Your task to perform on an android device: delete the emails in spam in the gmail app Image 0: 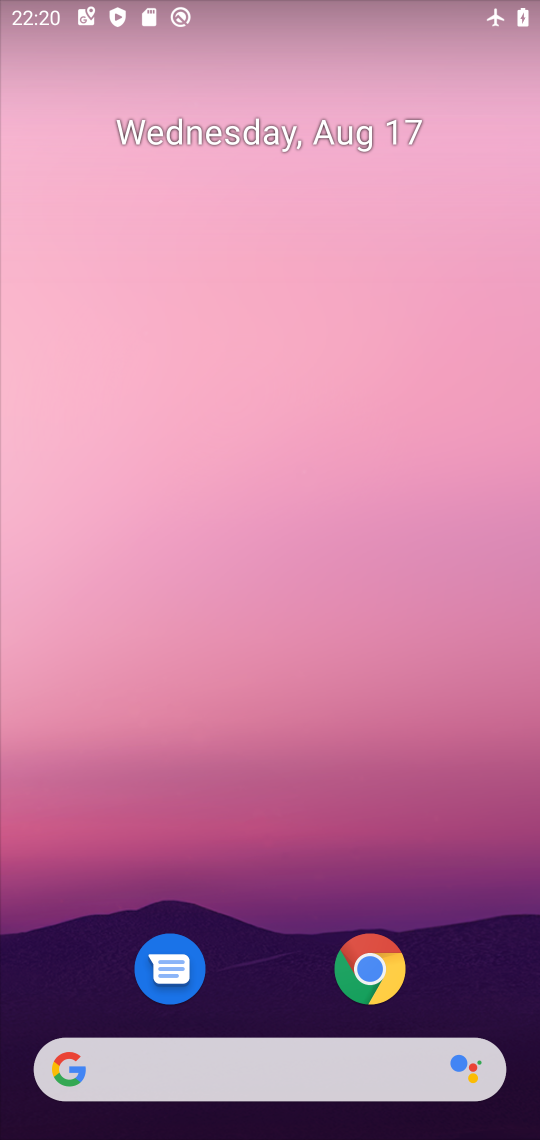
Step 0: drag from (272, 903) to (161, 238)
Your task to perform on an android device: delete the emails in spam in the gmail app Image 1: 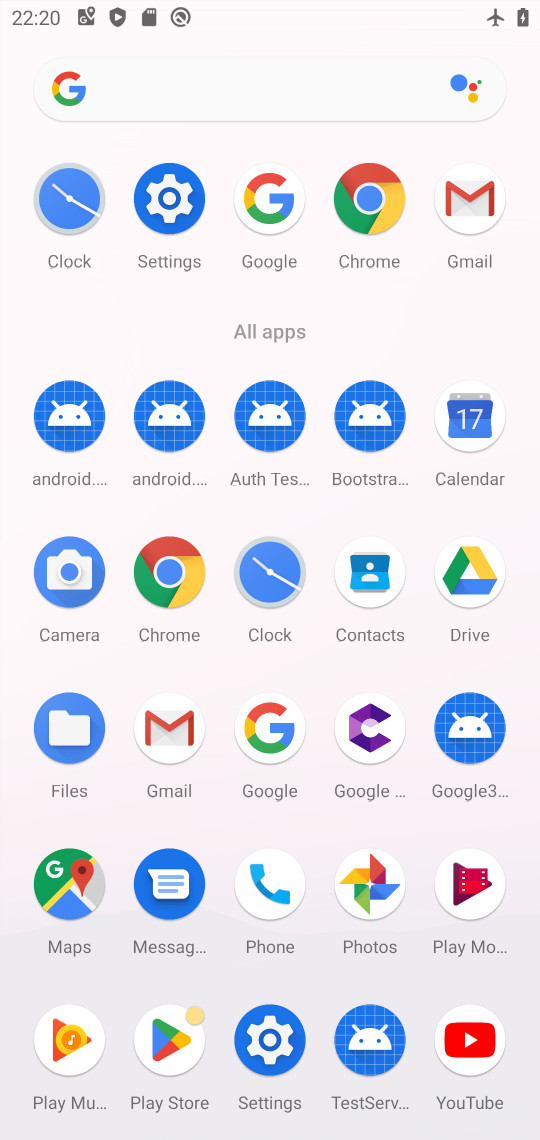
Step 1: click (462, 199)
Your task to perform on an android device: delete the emails in spam in the gmail app Image 2: 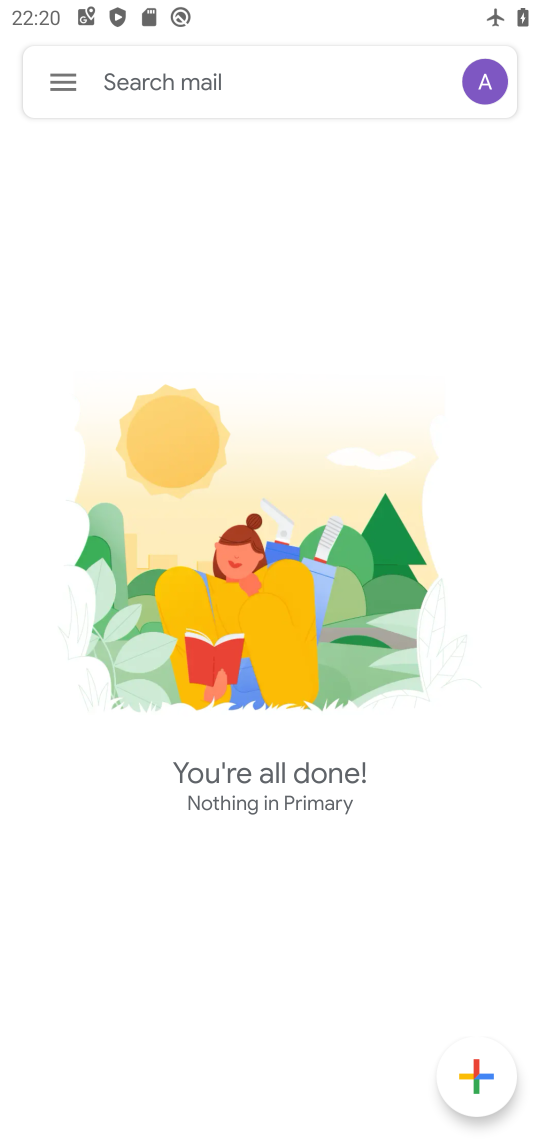
Step 2: click (59, 78)
Your task to perform on an android device: delete the emails in spam in the gmail app Image 3: 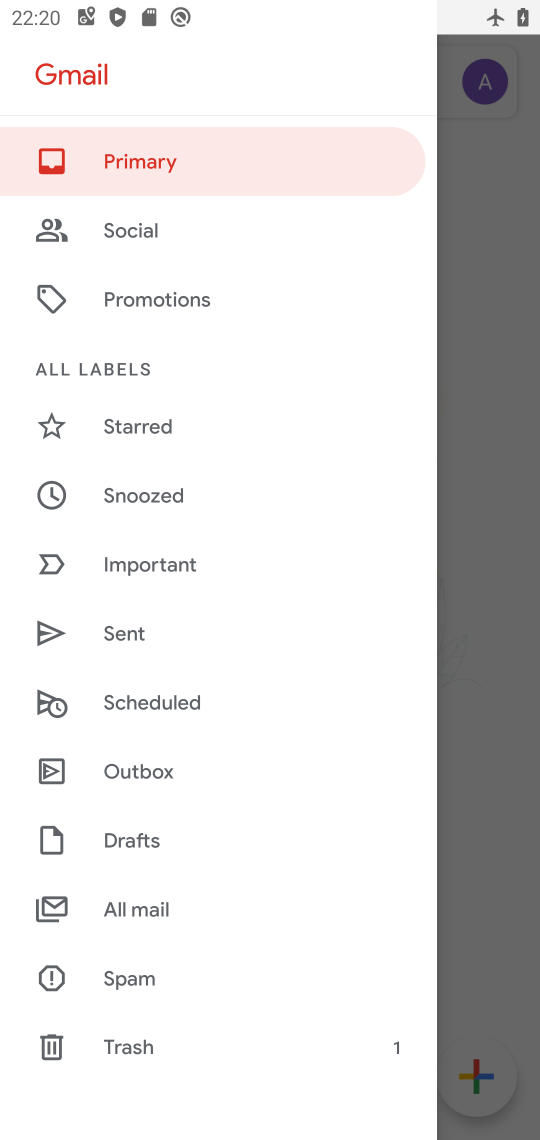
Step 3: click (133, 972)
Your task to perform on an android device: delete the emails in spam in the gmail app Image 4: 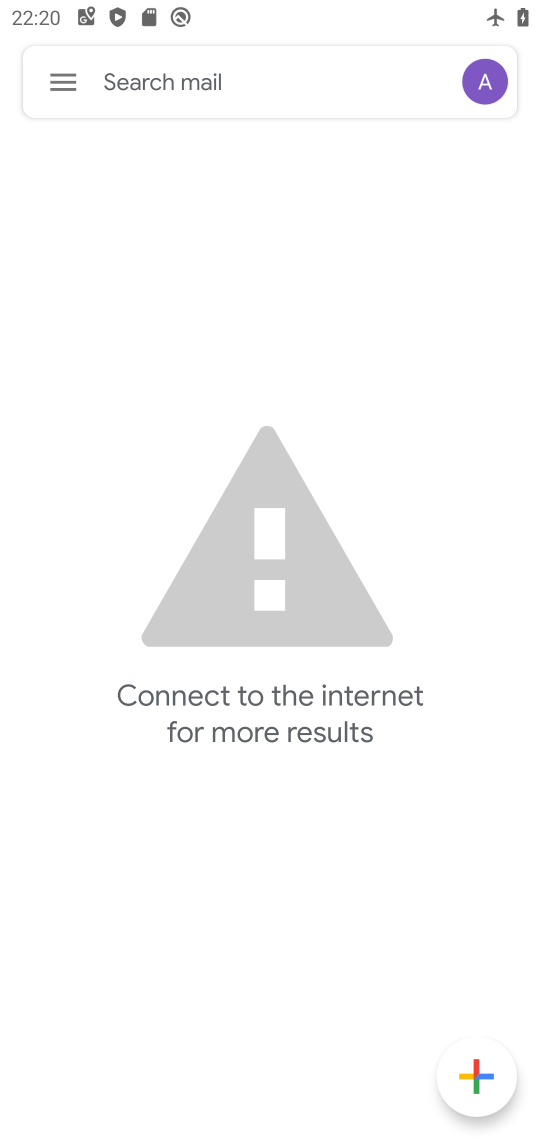
Step 4: task complete